Your task to perform on an android device: turn notification dots on Image 0: 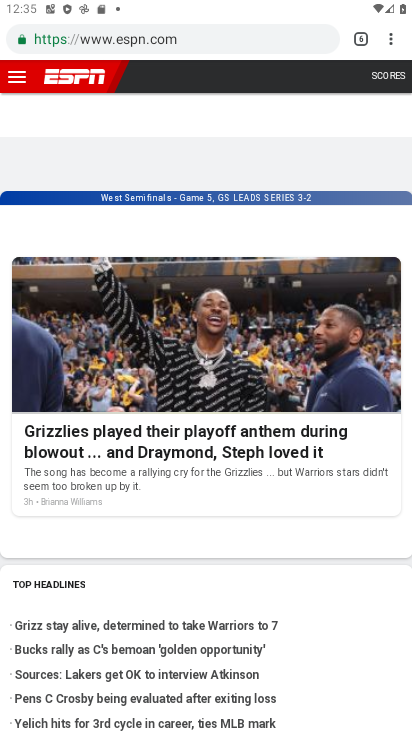
Step 0: press home button
Your task to perform on an android device: turn notification dots on Image 1: 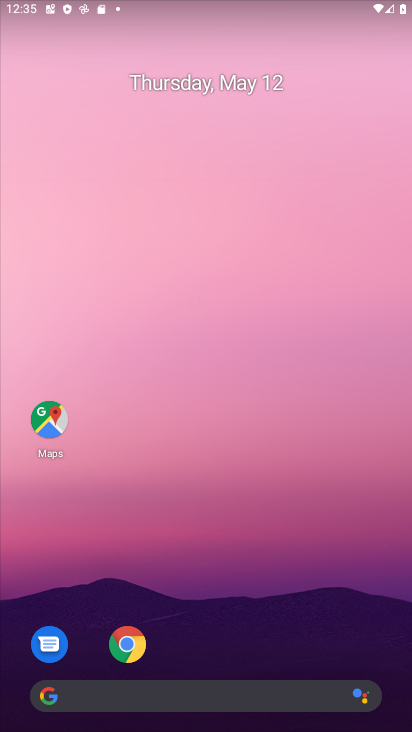
Step 1: drag from (327, 645) to (293, 246)
Your task to perform on an android device: turn notification dots on Image 2: 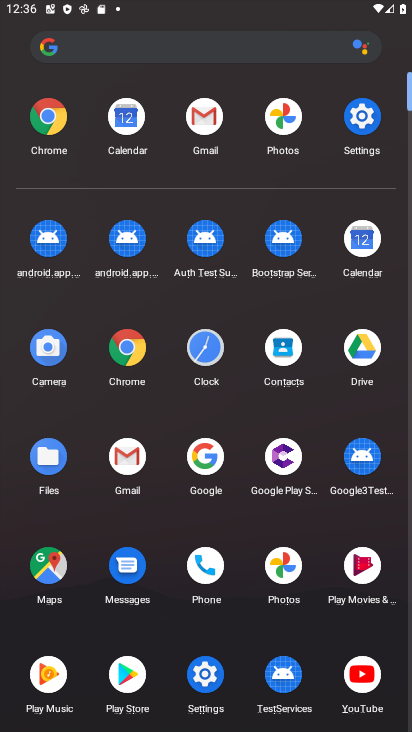
Step 2: click (217, 690)
Your task to perform on an android device: turn notification dots on Image 3: 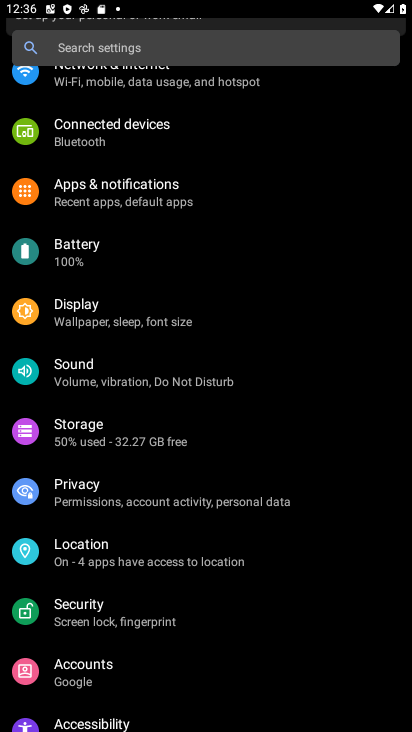
Step 3: click (147, 212)
Your task to perform on an android device: turn notification dots on Image 4: 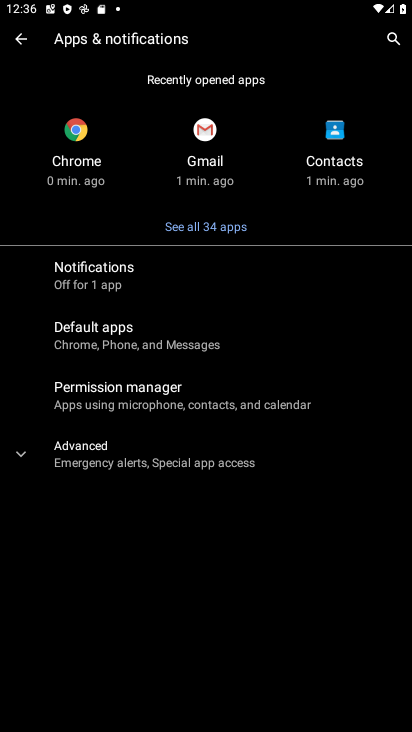
Step 4: click (137, 274)
Your task to perform on an android device: turn notification dots on Image 5: 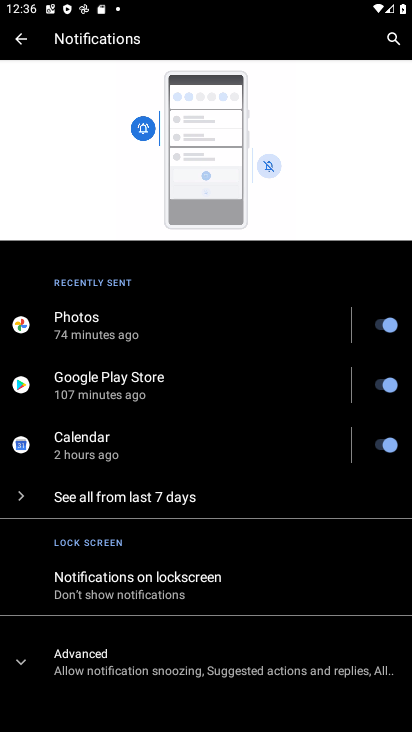
Step 5: click (212, 625)
Your task to perform on an android device: turn notification dots on Image 6: 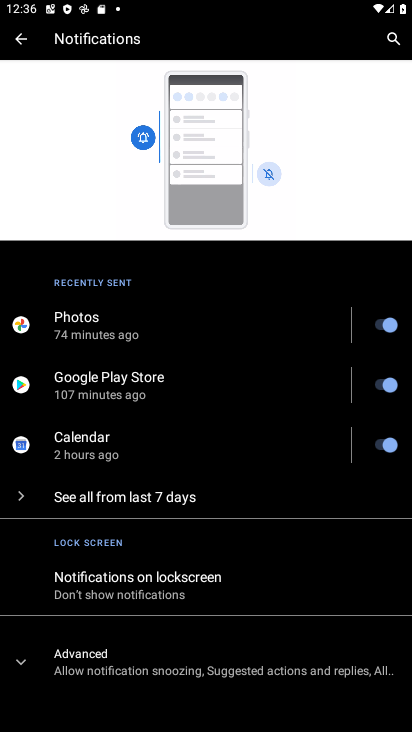
Step 6: drag from (212, 625) to (201, 427)
Your task to perform on an android device: turn notification dots on Image 7: 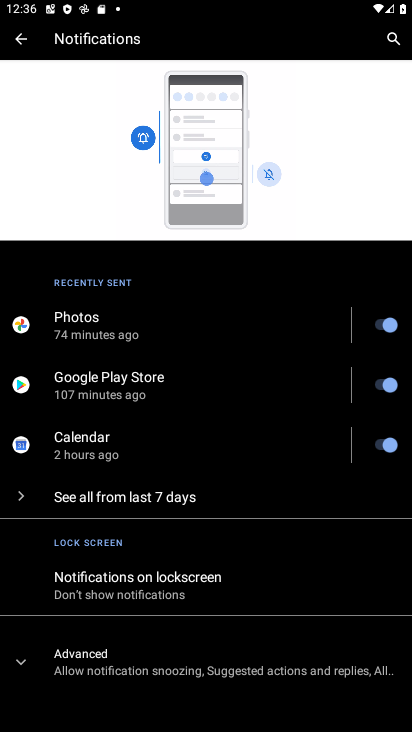
Step 7: click (181, 653)
Your task to perform on an android device: turn notification dots on Image 8: 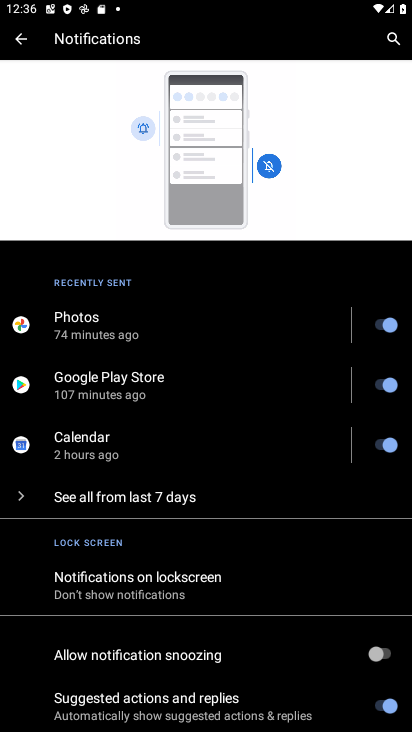
Step 8: drag from (188, 639) to (177, 433)
Your task to perform on an android device: turn notification dots on Image 9: 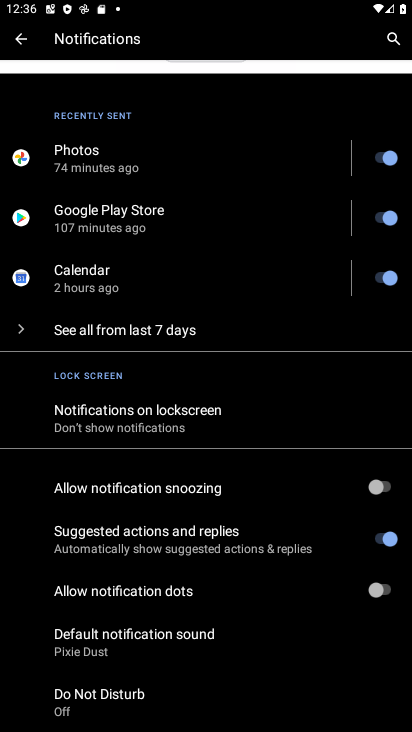
Step 9: click (212, 577)
Your task to perform on an android device: turn notification dots on Image 10: 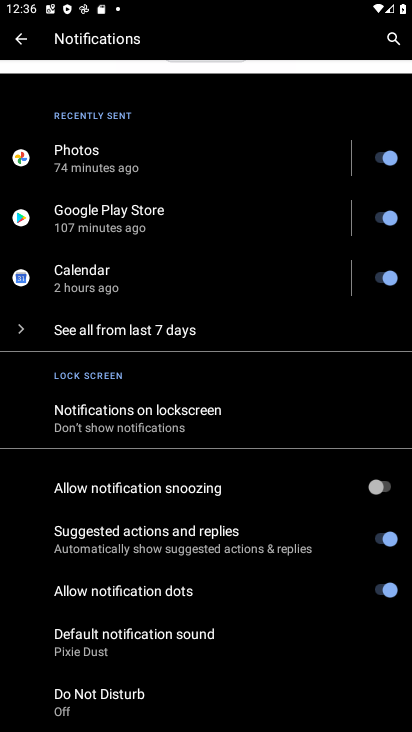
Step 10: task complete